Your task to perform on an android device: Search for pizza restaurants on Maps Image 0: 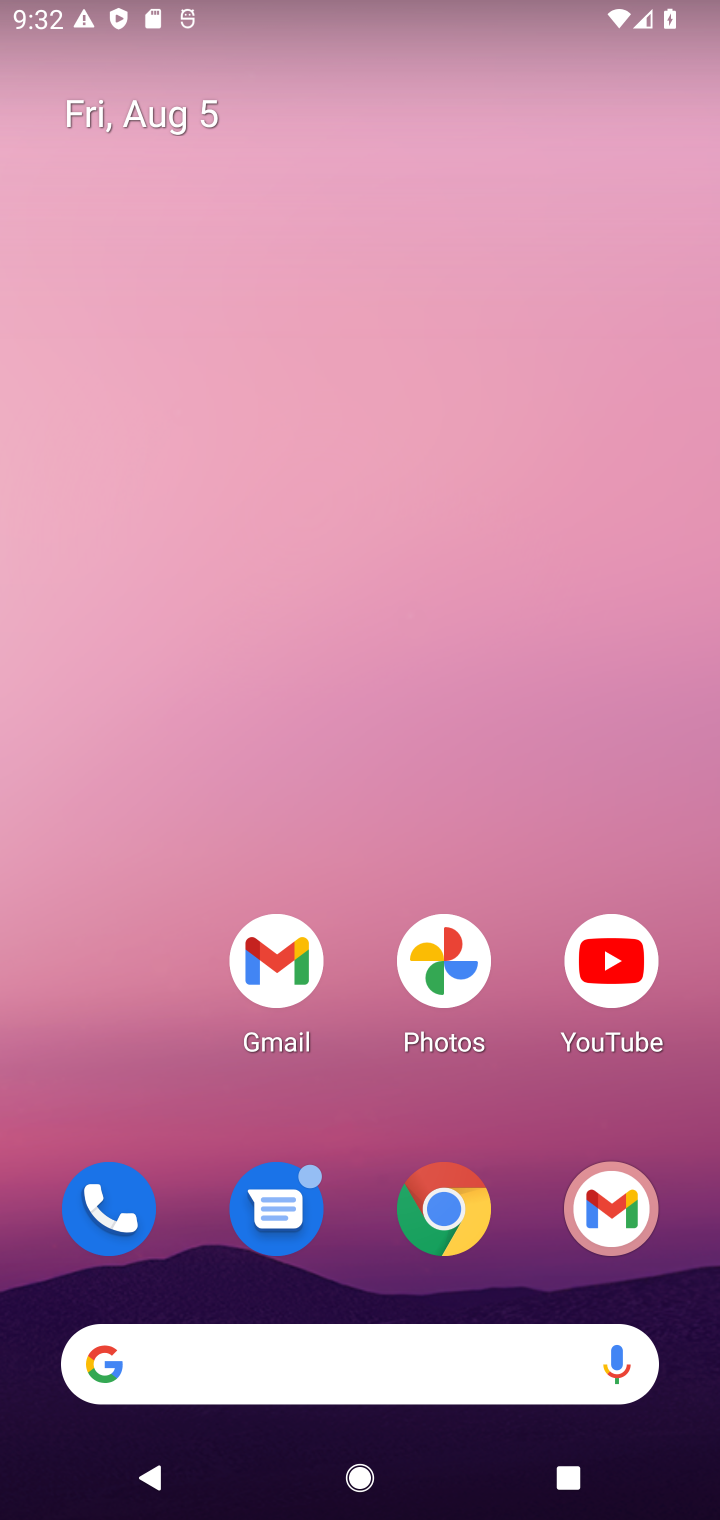
Step 0: drag from (346, 1196) to (264, 394)
Your task to perform on an android device: Search for pizza restaurants on Maps Image 1: 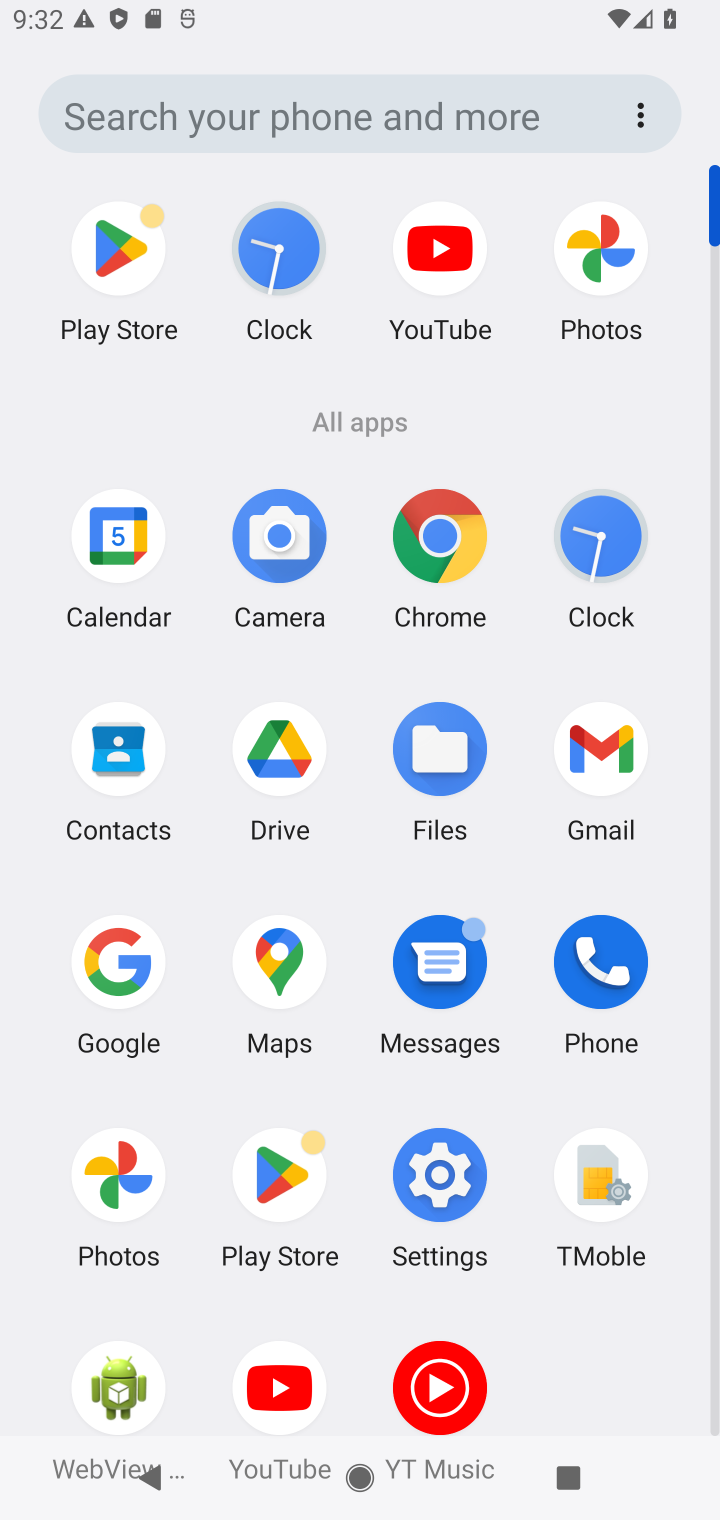
Step 1: click (305, 938)
Your task to perform on an android device: Search for pizza restaurants on Maps Image 2: 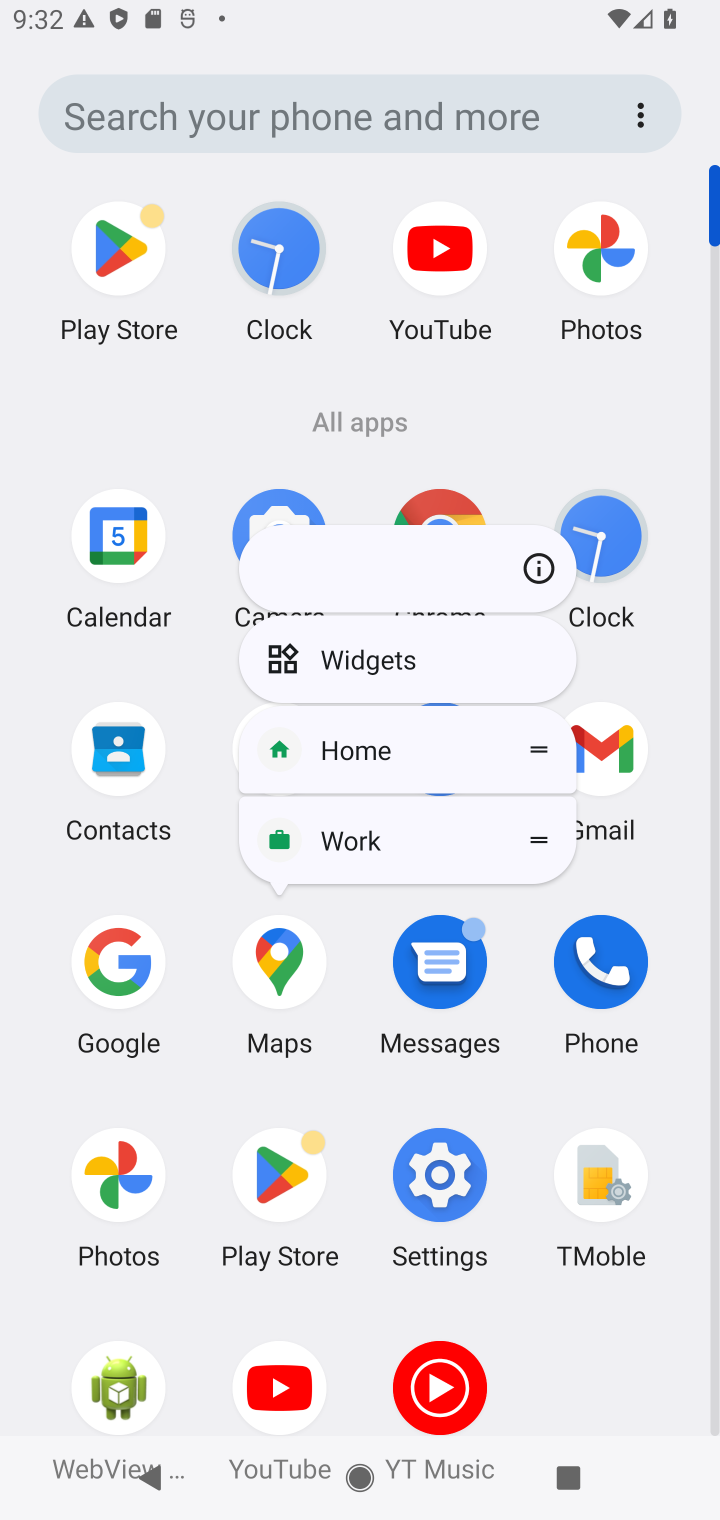
Step 2: click (530, 573)
Your task to perform on an android device: Search for pizza restaurants on Maps Image 3: 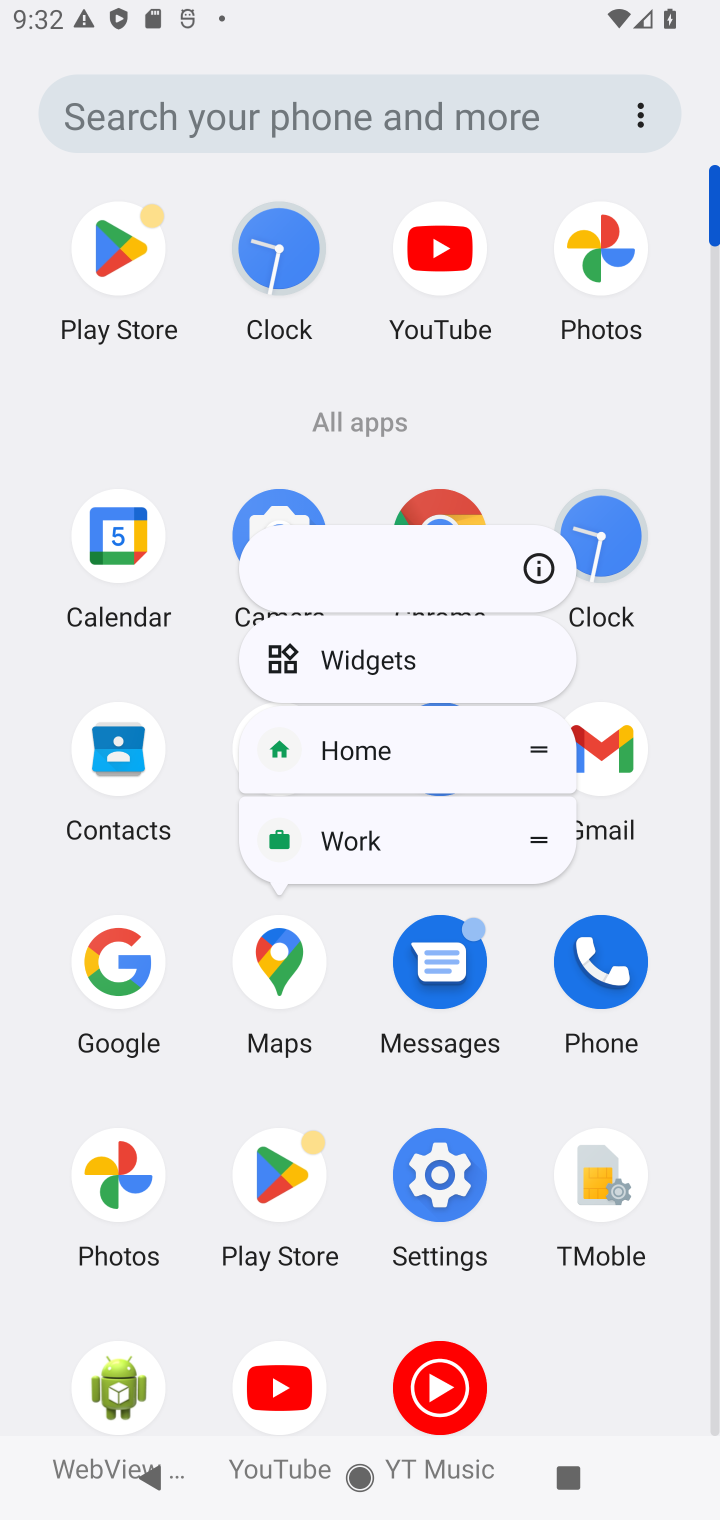
Step 3: click (536, 578)
Your task to perform on an android device: Search for pizza restaurants on Maps Image 4: 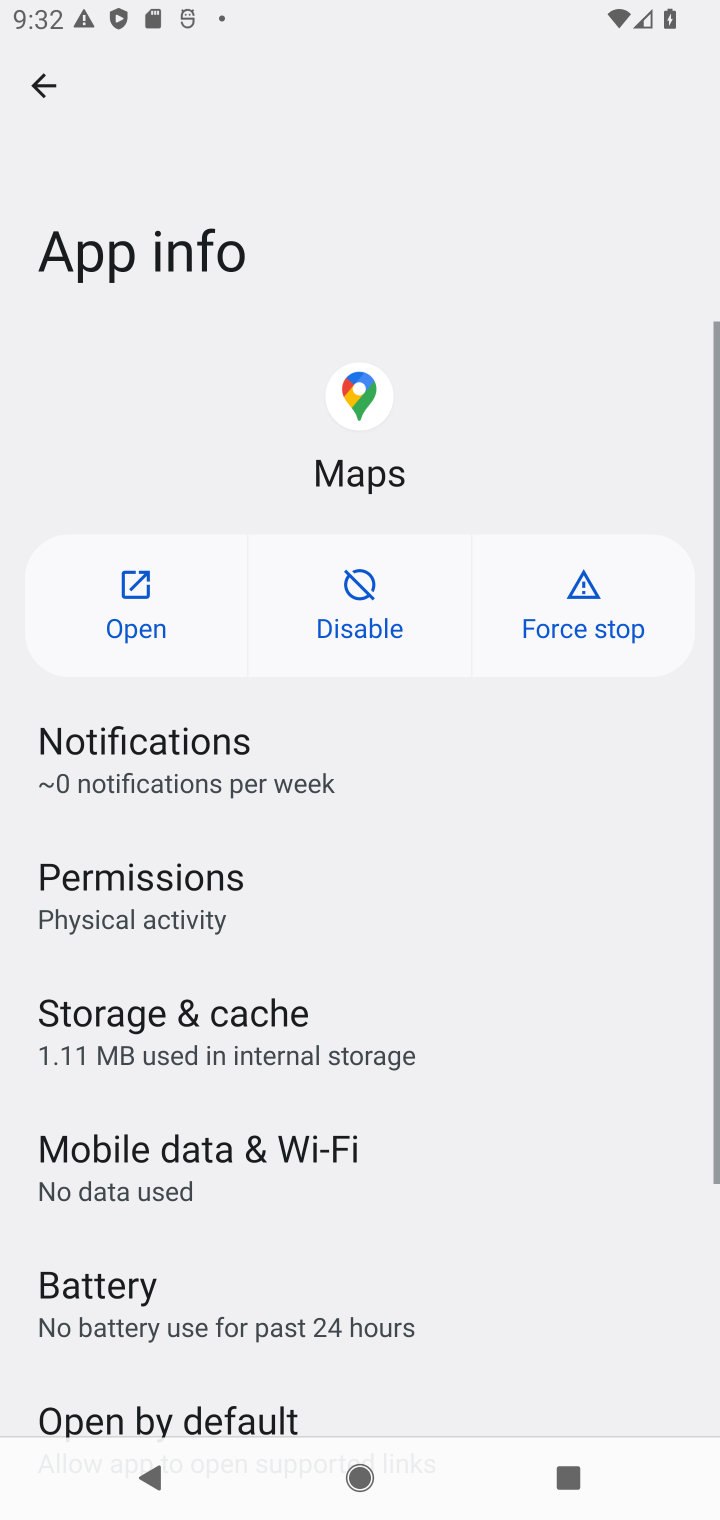
Step 4: click (120, 599)
Your task to perform on an android device: Search for pizza restaurants on Maps Image 5: 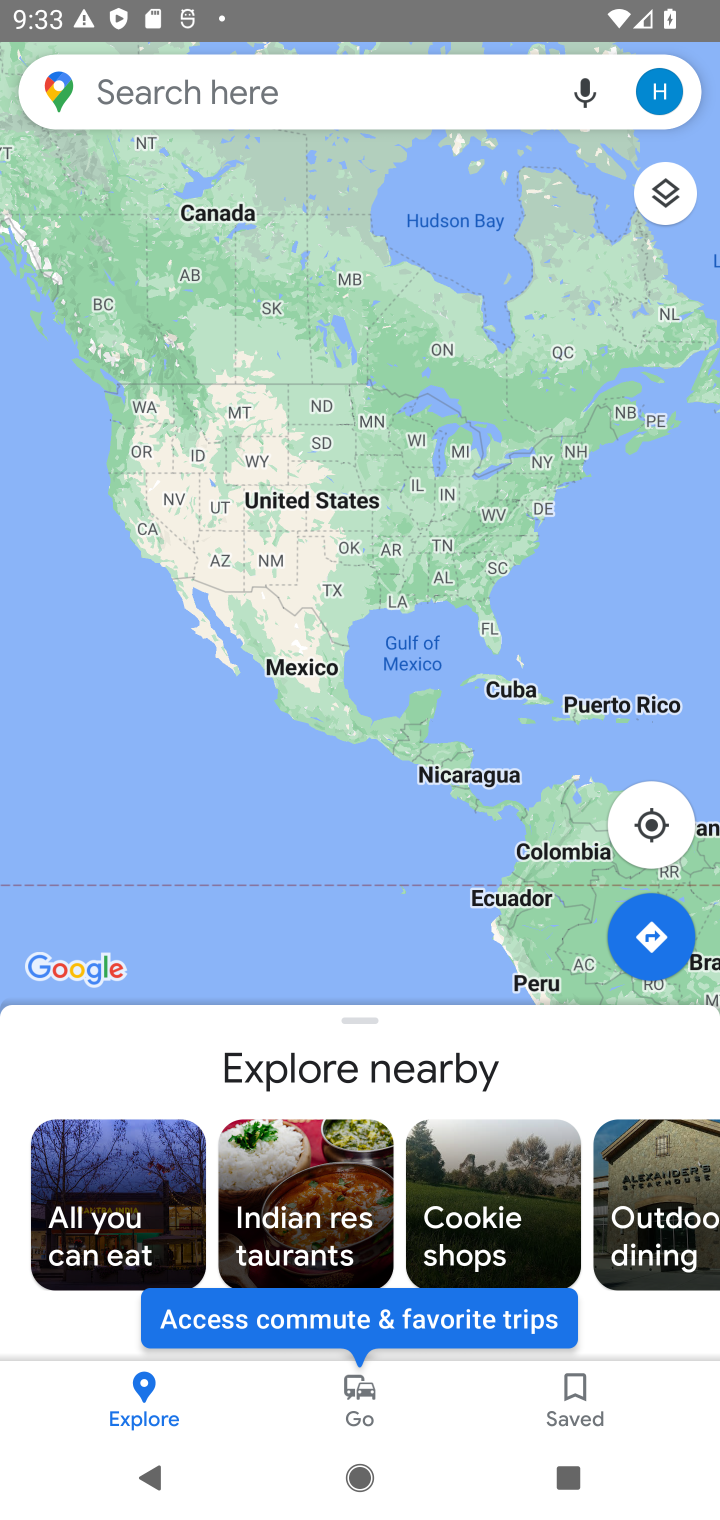
Step 5: click (304, 94)
Your task to perform on an android device: Search for pizza restaurants on Maps Image 6: 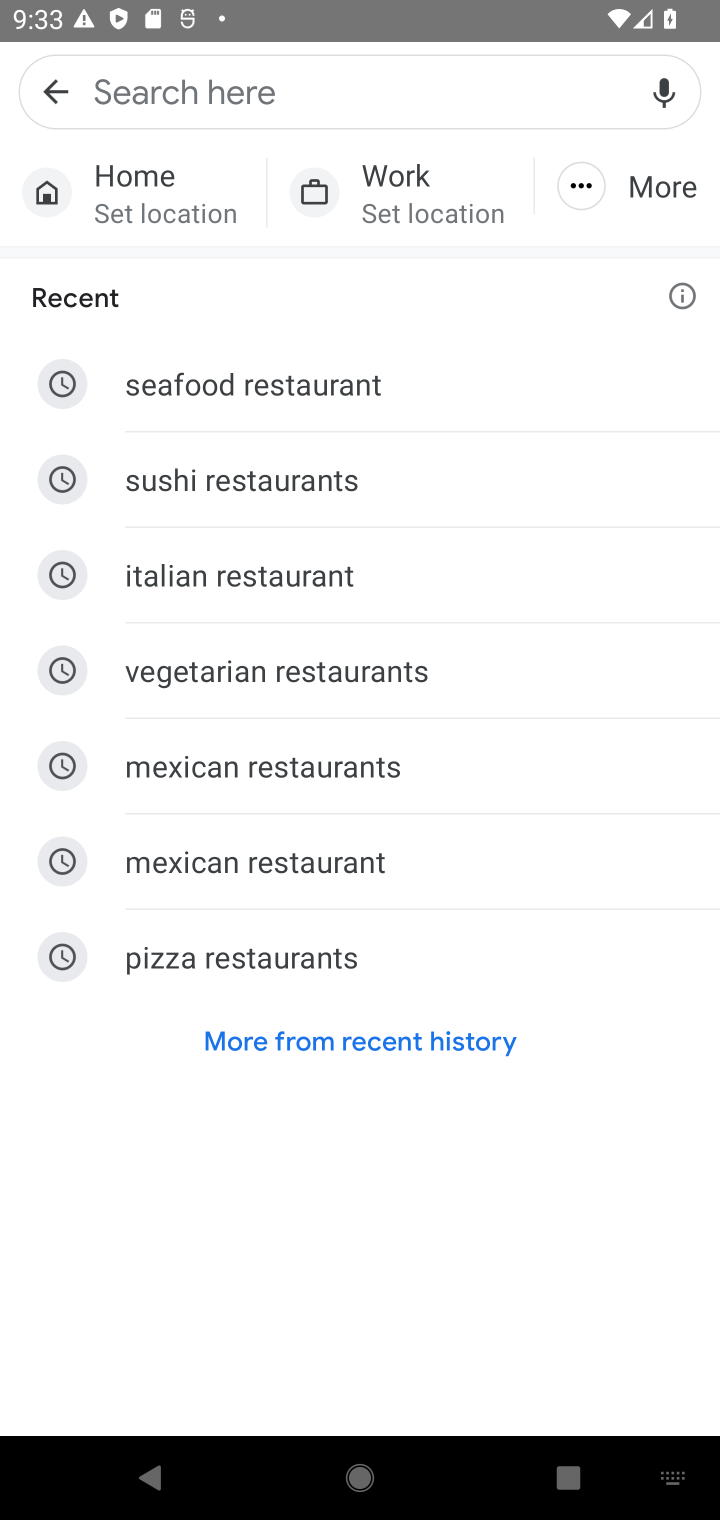
Step 6: click (136, 957)
Your task to perform on an android device: Search for pizza restaurants on Maps Image 7: 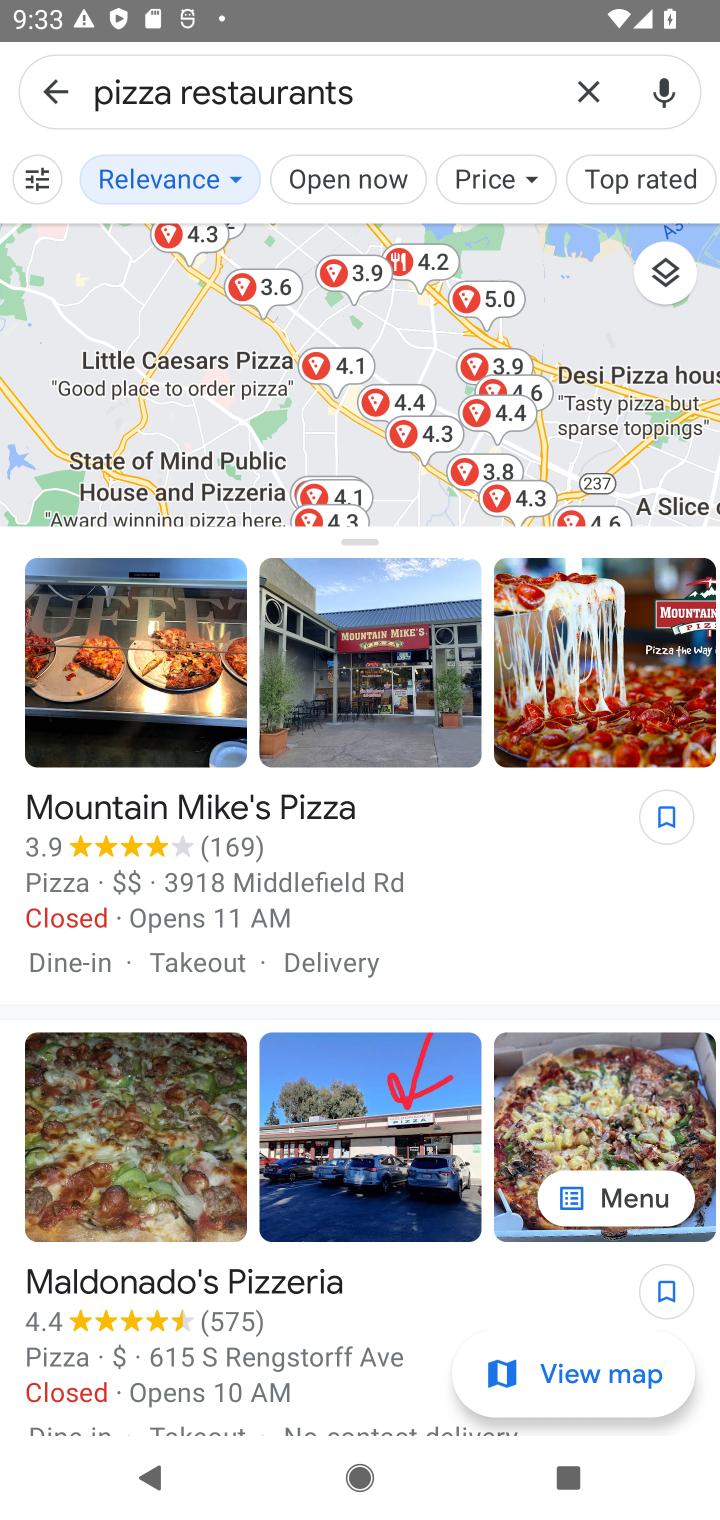
Step 7: task complete